Your task to perform on an android device: change keyboard looks Image 0: 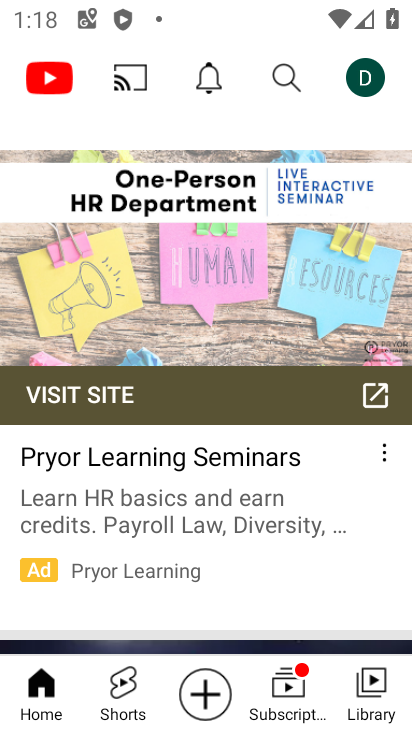
Step 0: press home button
Your task to perform on an android device: change keyboard looks Image 1: 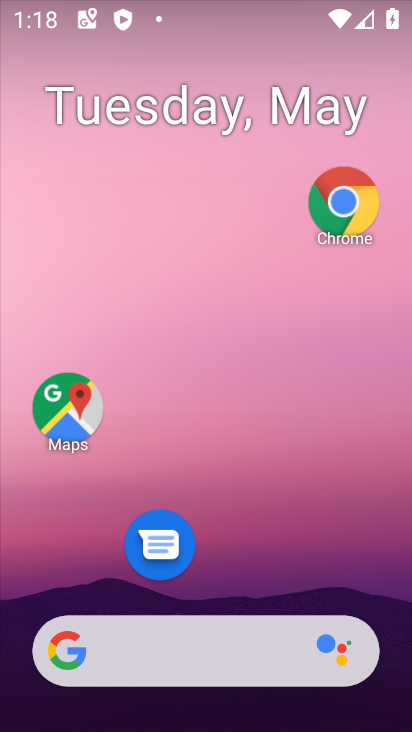
Step 1: drag from (238, 594) to (187, 13)
Your task to perform on an android device: change keyboard looks Image 2: 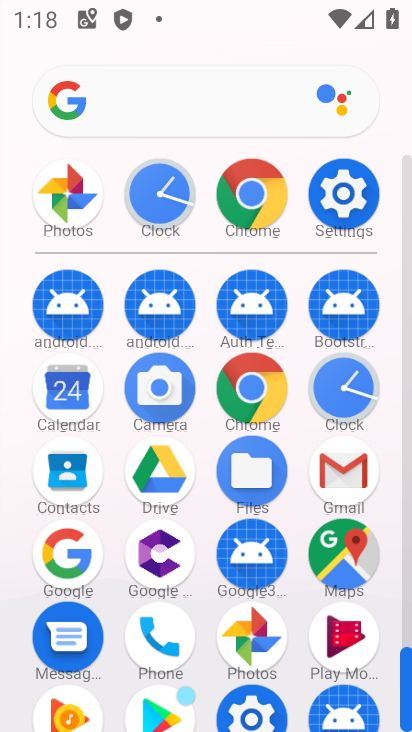
Step 2: click (353, 163)
Your task to perform on an android device: change keyboard looks Image 3: 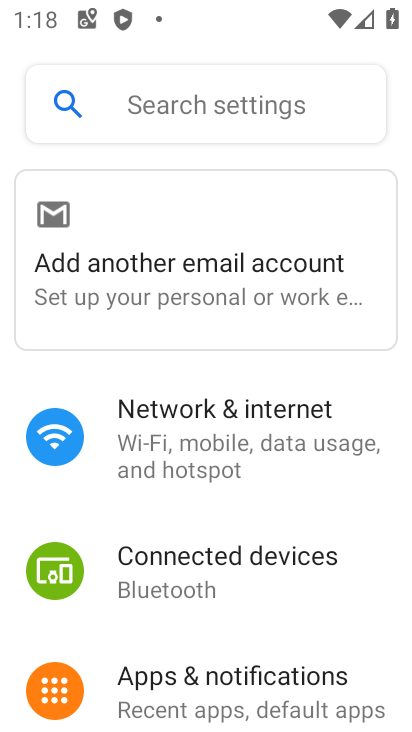
Step 3: drag from (135, 632) to (223, 47)
Your task to perform on an android device: change keyboard looks Image 4: 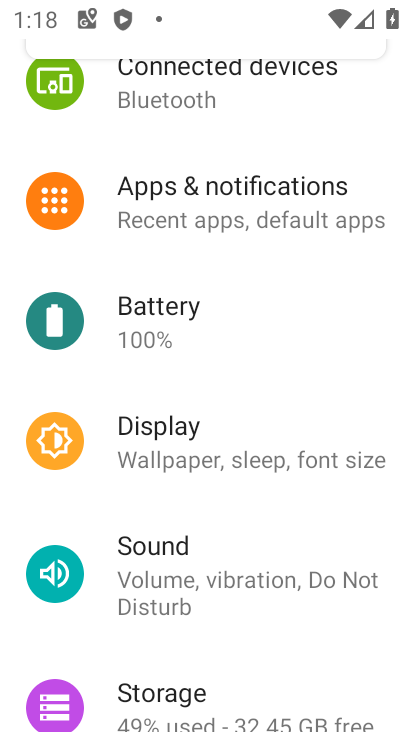
Step 4: drag from (108, 622) to (197, 140)
Your task to perform on an android device: change keyboard looks Image 5: 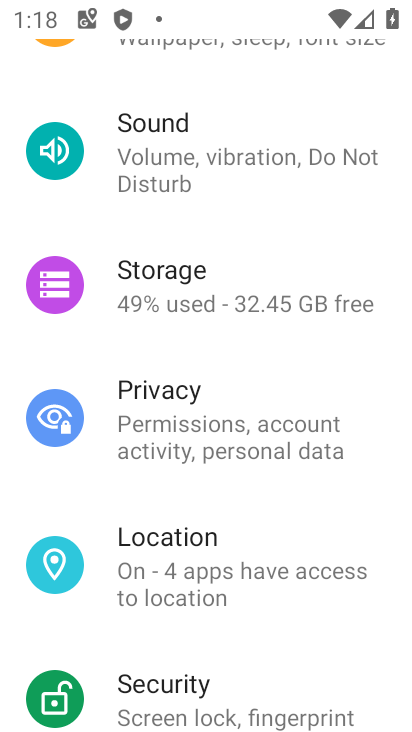
Step 5: drag from (261, 208) to (294, 613)
Your task to perform on an android device: change keyboard looks Image 6: 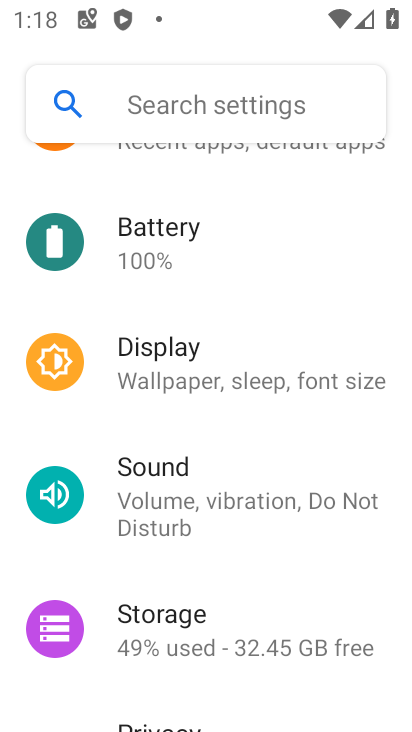
Step 6: click (198, 344)
Your task to perform on an android device: change keyboard looks Image 7: 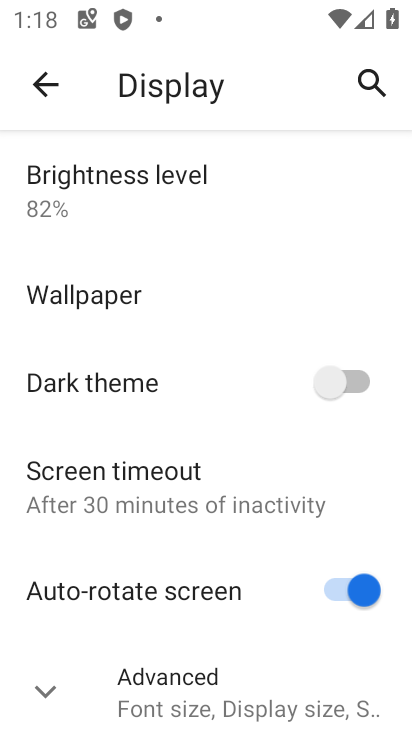
Step 7: click (161, 678)
Your task to perform on an android device: change keyboard looks Image 8: 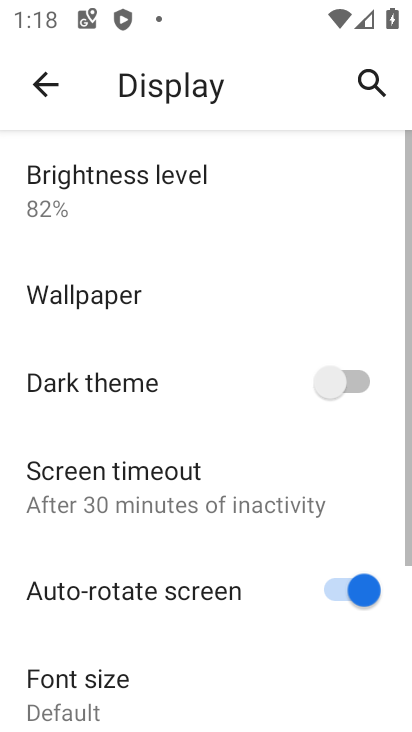
Step 8: drag from (161, 678) to (208, 238)
Your task to perform on an android device: change keyboard looks Image 9: 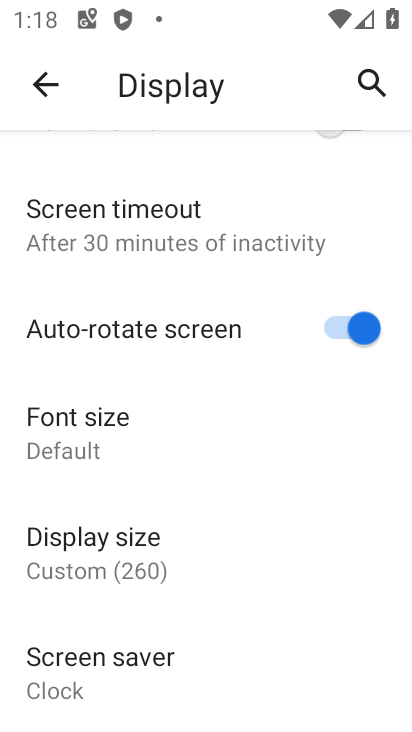
Step 9: drag from (232, 239) to (237, 652)
Your task to perform on an android device: change keyboard looks Image 10: 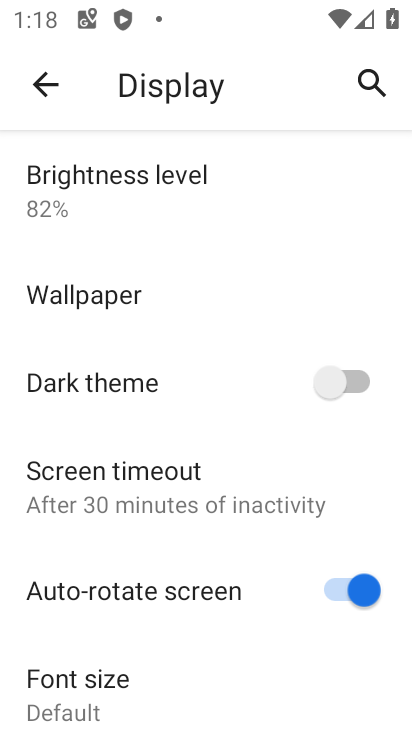
Step 10: drag from (173, 659) to (208, 266)
Your task to perform on an android device: change keyboard looks Image 11: 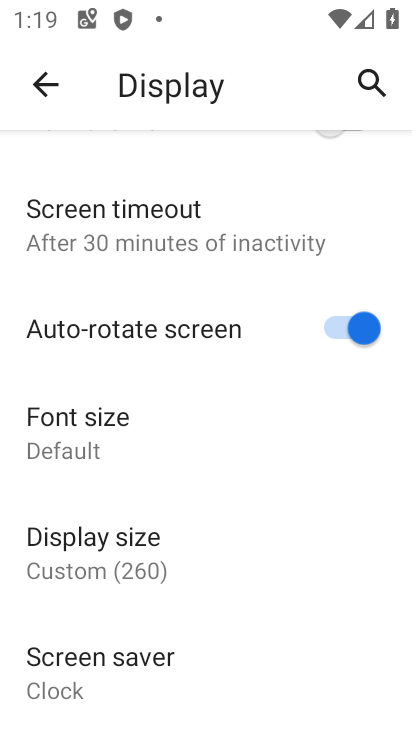
Step 11: drag from (226, 165) to (262, 668)
Your task to perform on an android device: change keyboard looks Image 12: 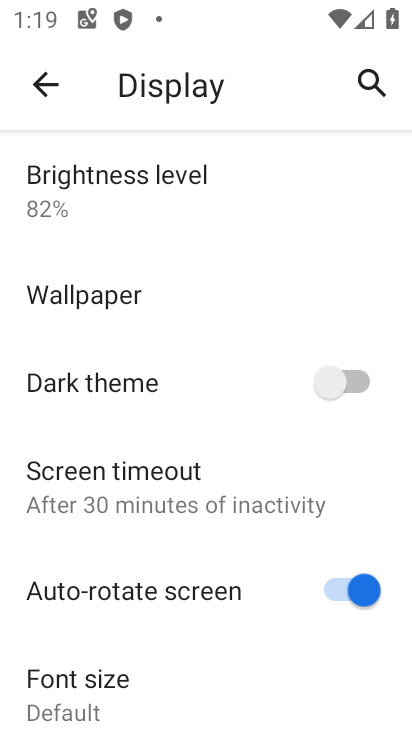
Step 12: click (51, 81)
Your task to perform on an android device: change keyboard looks Image 13: 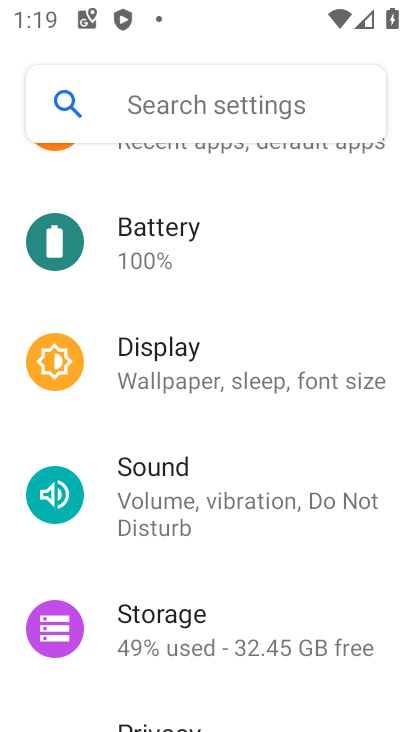
Step 13: drag from (143, 632) to (179, 175)
Your task to perform on an android device: change keyboard looks Image 14: 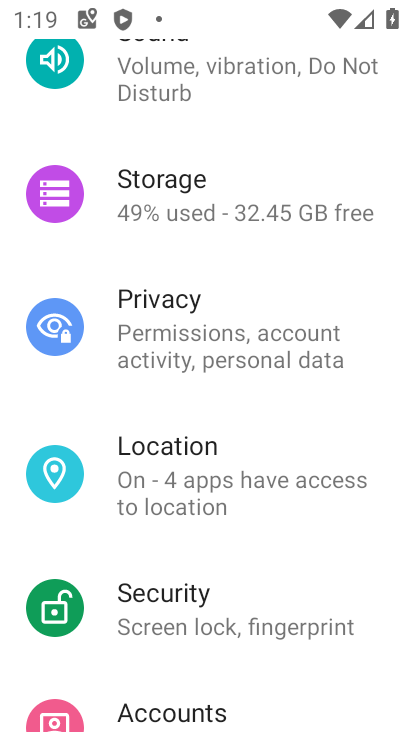
Step 14: drag from (161, 656) to (247, 226)
Your task to perform on an android device: change keyboard looks Image 15: 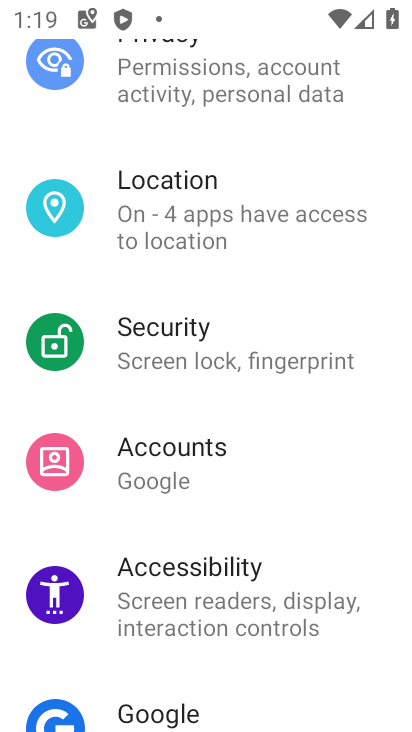
Step 15: drag from (104, 674) to (251, 136)
Your task to perform on an android device: change keyboard looks Image 16: 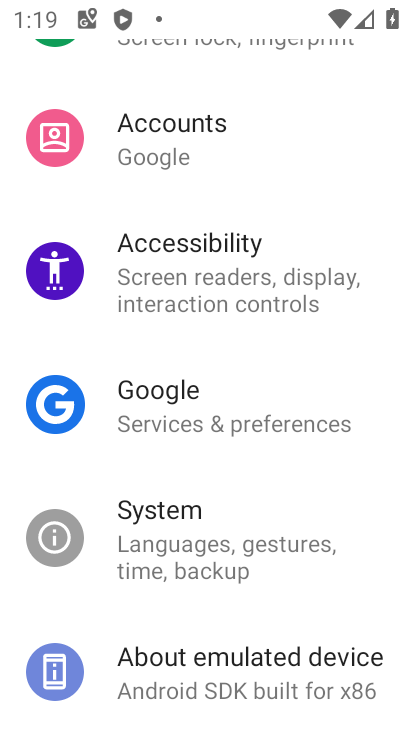
Step 16: click (256, 575)
Your task to perform on an android device: change keyboard looks Image 17: 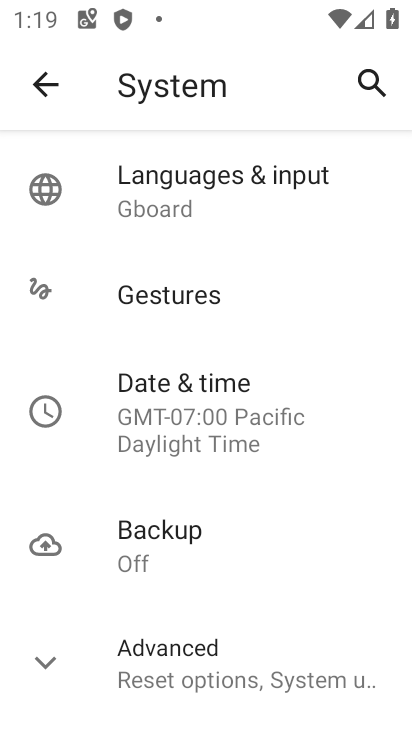
Step 17: click (204, 204)
Your task to perform on an android device: change keyboard looks Image 18: 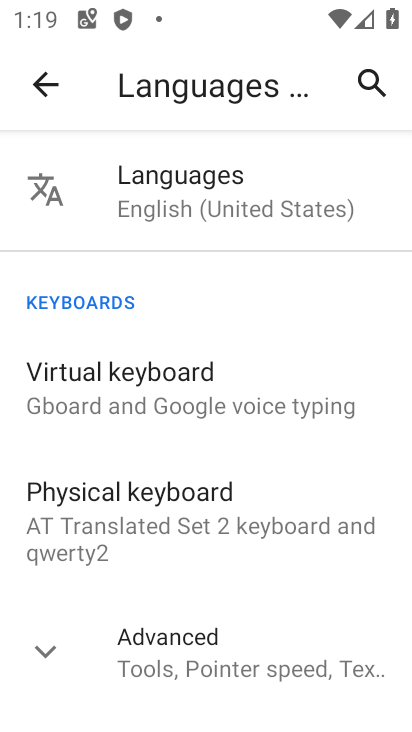
Step 18: click (117, 392)
Your task to perform on an android device: change keyboard looks Image 19: 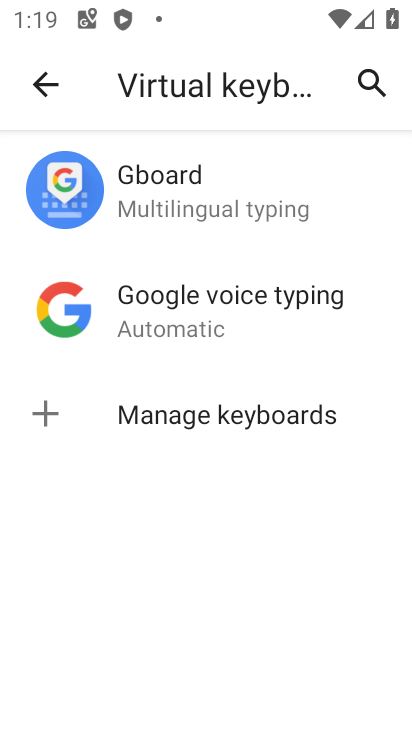
Step 19: click (163, 338)
Your task to perform on an android device: change keyboard looks Image 20: 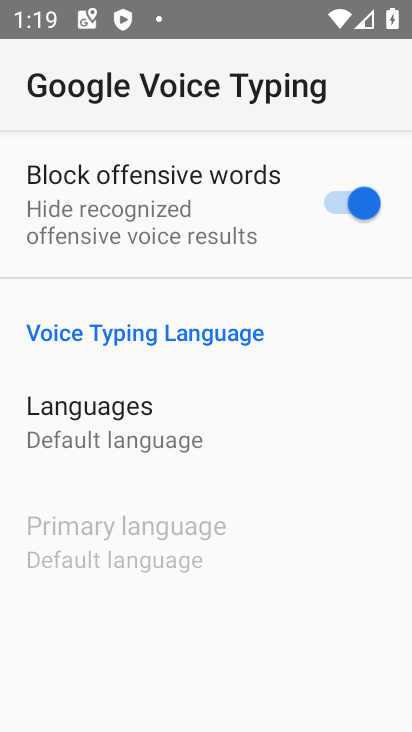
Step 20: click (161, 416)
Your task to perform on an android device: change keyboard looks Image 21: 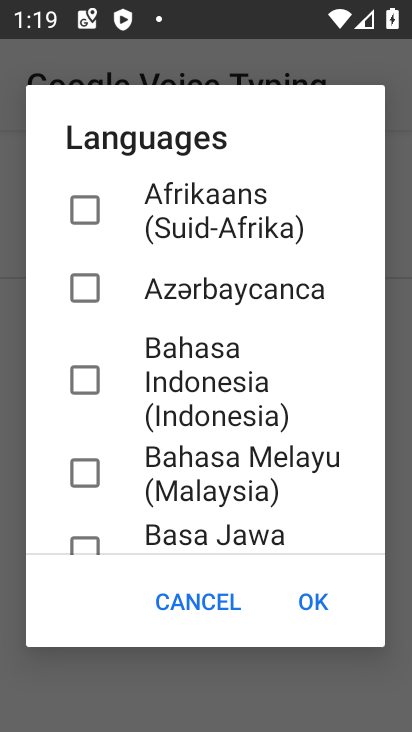
Step 21: click (188, 610)
Your task to perform on an android device: change keyboard looks Image 22: 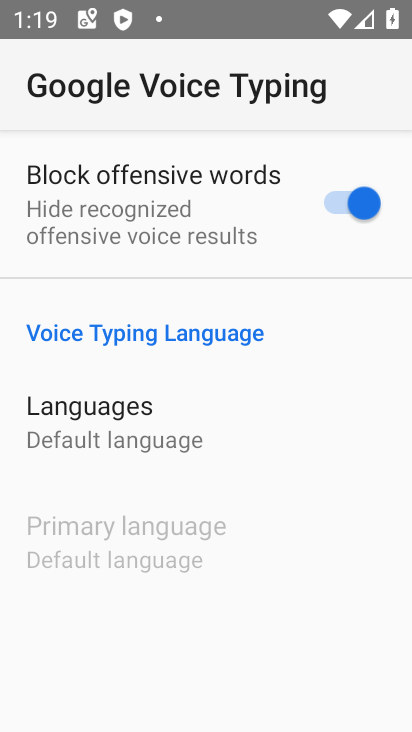
Step 22: press back button
Your task to perform on an android device: change keyboard looks Image 23: 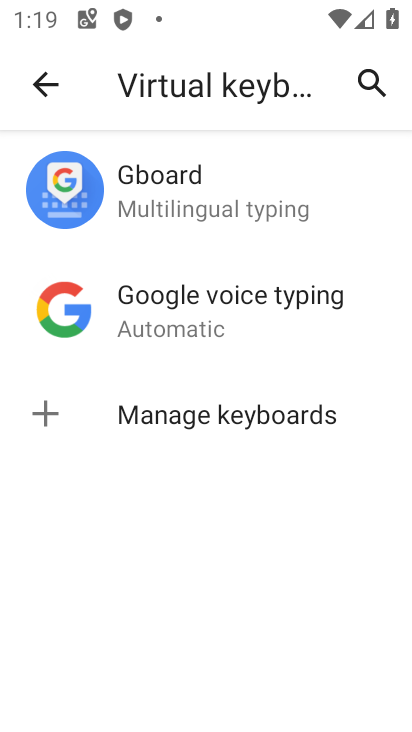
Step 23: click (183, 206)
Your task to perform on an android device: change keyboard looks Image 24: 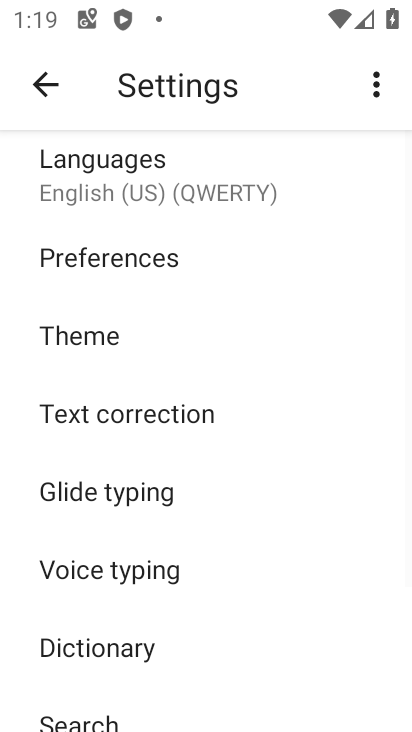
Step 24: click (106, 357)
Your task to perform on an android device: change keyboard looks Image 25: 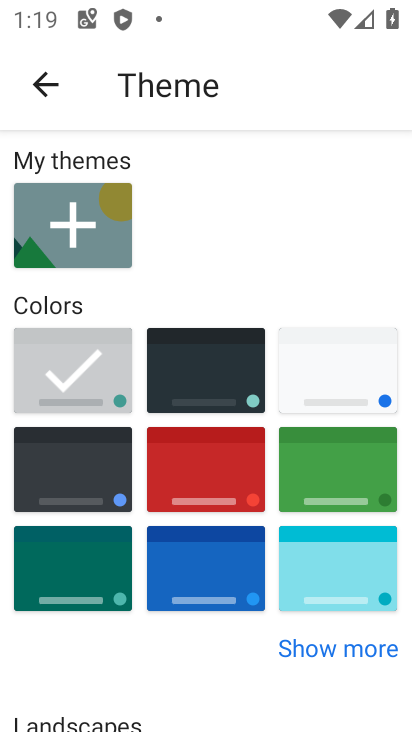
Step 25: click (335, 527)
Your task to perform on an android device: change keyboard looks Image 26: 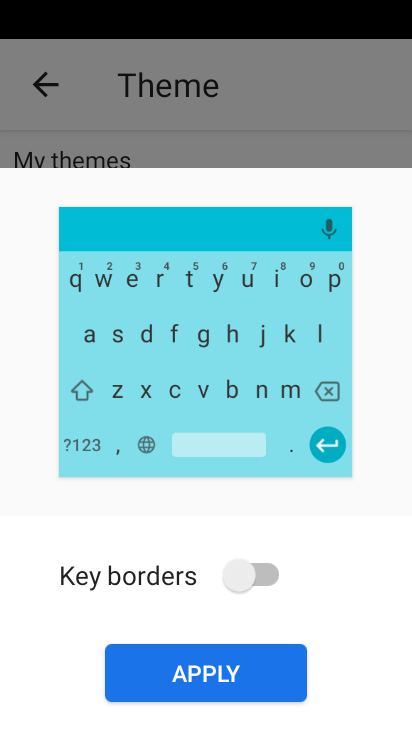
Step 26: click (191, 693)
Your task to perform on an android device: change keyboard looks Image 27: 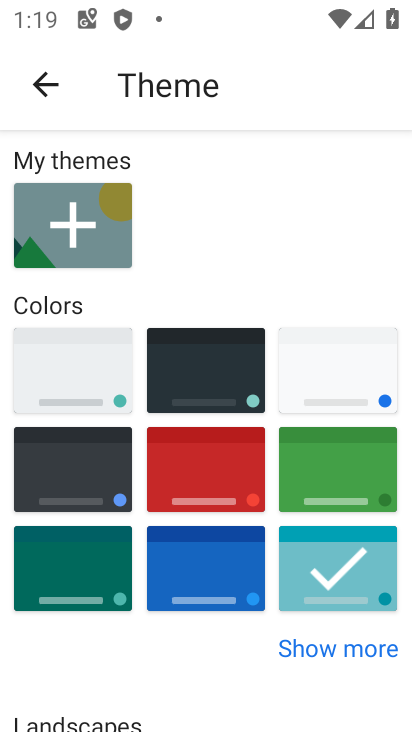
Step 27: task complete